Your task to perform on an android device: manage bookmarks in the chrome app Image 0: 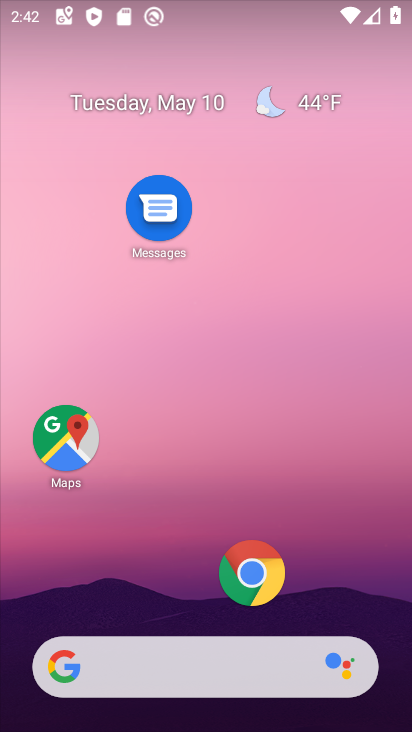
Step 0: click (269, 563)
Your task to perform on an android device: manage bookmarks in the chrome app Image 1: 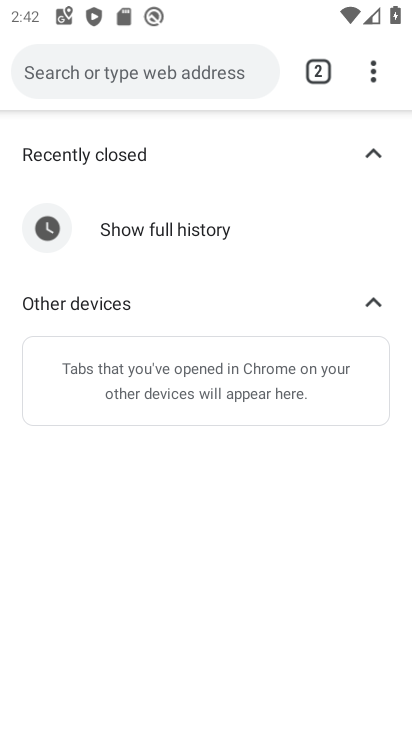
Step 1: task complete